Your task to perform on an android device: turn on improve location accuracy Image 0: 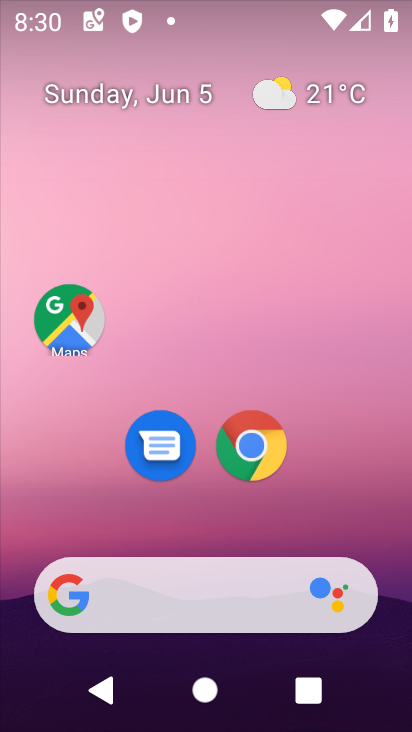
Step 0: drag from (358, 521) to (333, 78)
Your task to perform on an android device: turn on improve location accuracy Image 1: 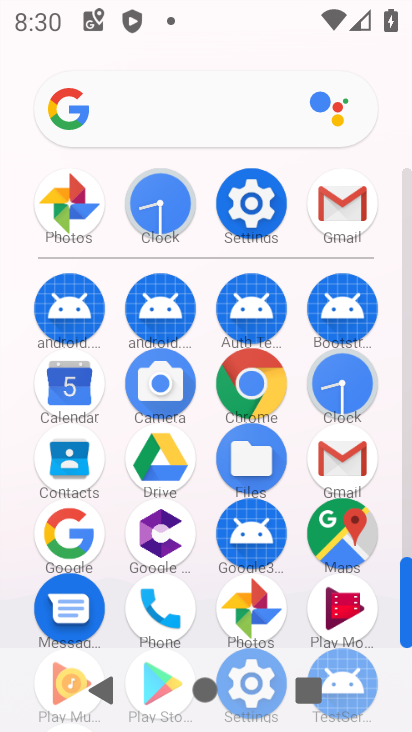
Step 1: click (247, 218)
Your task to perform on an android device: turn on improve location accuracy Image 2: 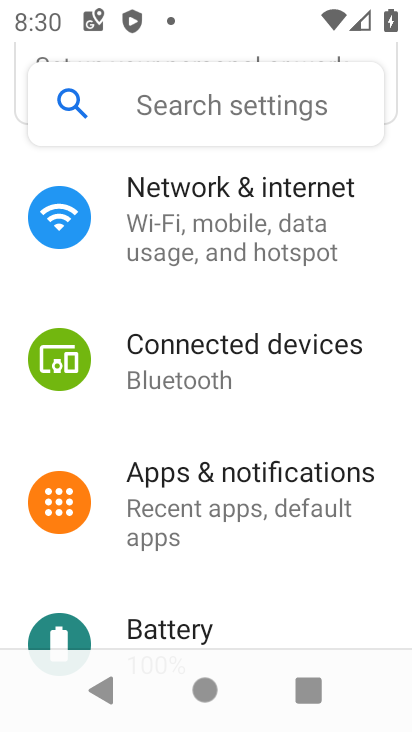
Step 2: drag from (313, 568) to (317, 172)
Your task to perform on an android device: turn on improve location accuracy Image 3: 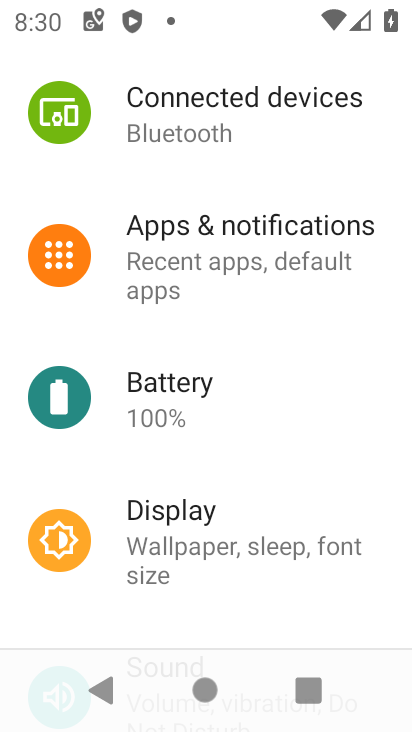
Step 3: drag from (94, 610) to (187, 175)
Your task to perform on an android device: turn on improve location accuracy Image 4: 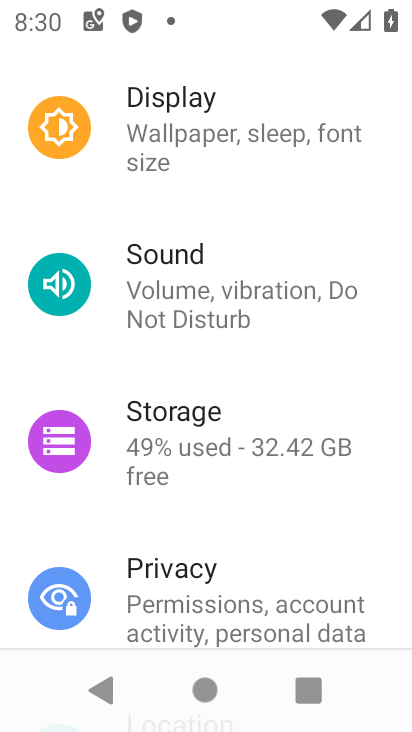
Step 4: drag from (75, 523) to (140, 184)
Your task to perform on an android device: turn on improve location accuracy Image 5: 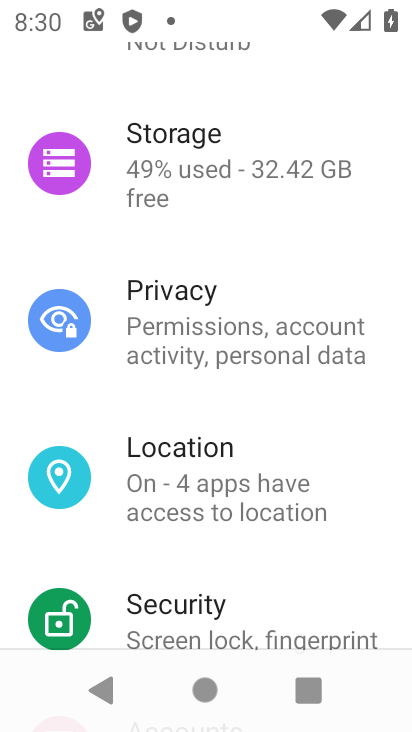
Step 5: click (221, 480)
Your task to perform on an android device: turn on improve location accuracy Image 6: 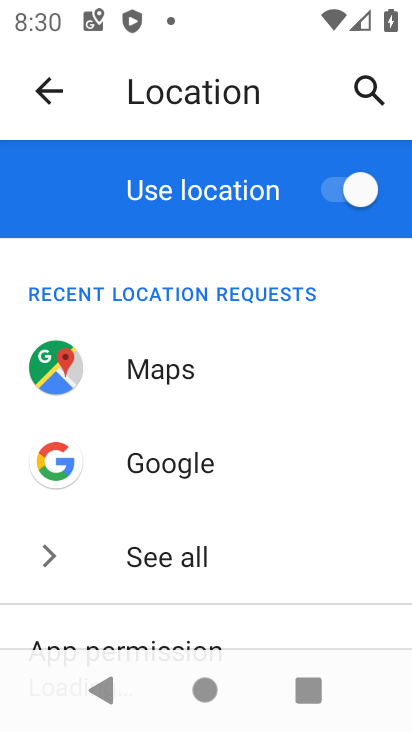
Step 6: drag from (328, 619) to (314, 219)
Your task to perform on an android device: turn on improve location accuracy Image 7: 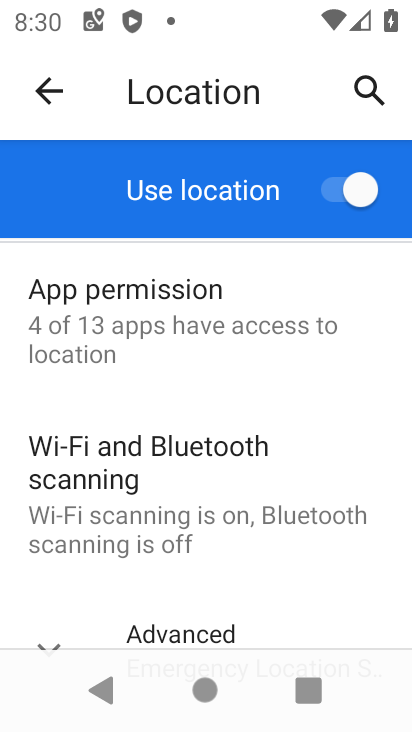
Step 7: drag from (35, 591) to (69, 482)
Your task to perform on an android device: turn on improve location accuracy Image 8: 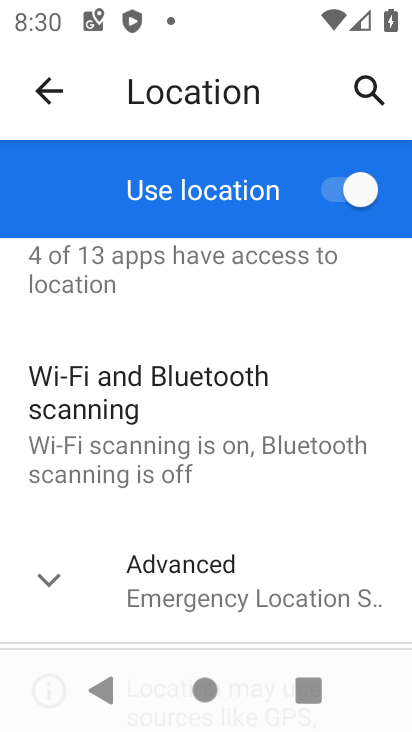
Step 8: drag from (43, 309) to (148, 193)
Your task to perform on an android device: turn on improve location accuracy Image 9: 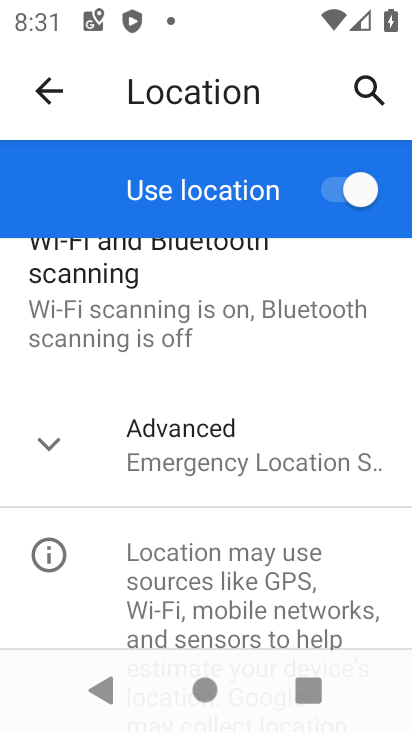
Step 9: click (40, 441)
Your task to perform on an android device: turn on improve location accuracy Image 10: 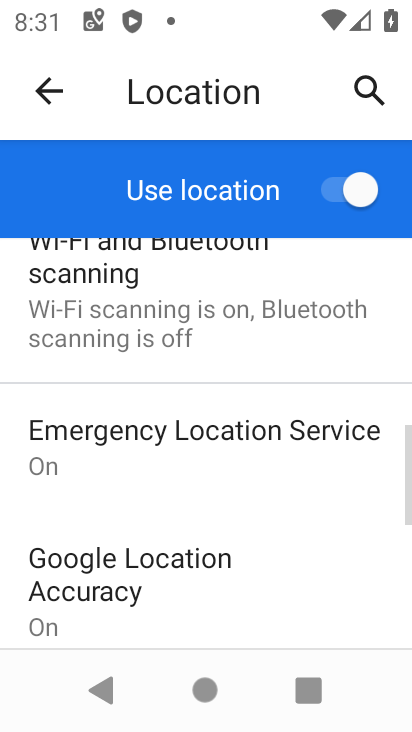
Step 10: drag from (316, 601) to (301, 328)
Your task to perform on an android device: turn on improve location accuracy Image 11: 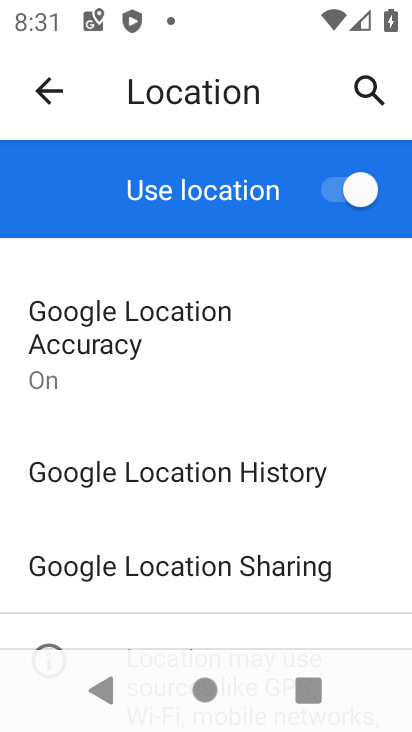
Step 11: click (183, 348)
Your task to perform on an android device: turn on improve location accuracy Image 12: 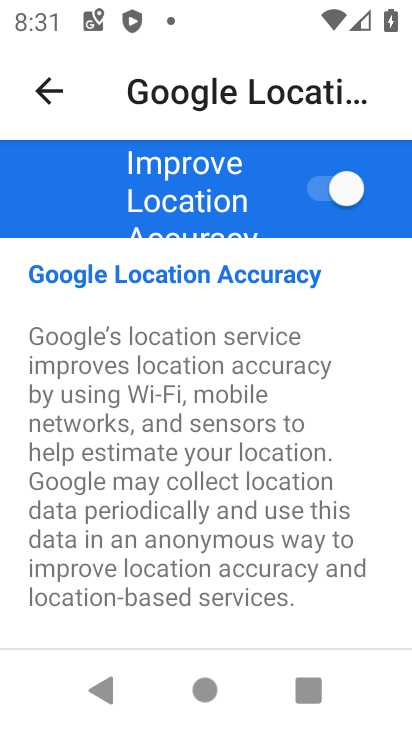
Step 12: task complete